Your task to perform on an android device: uninstall "DuckDuckGo Privacy Browser" Image 0: 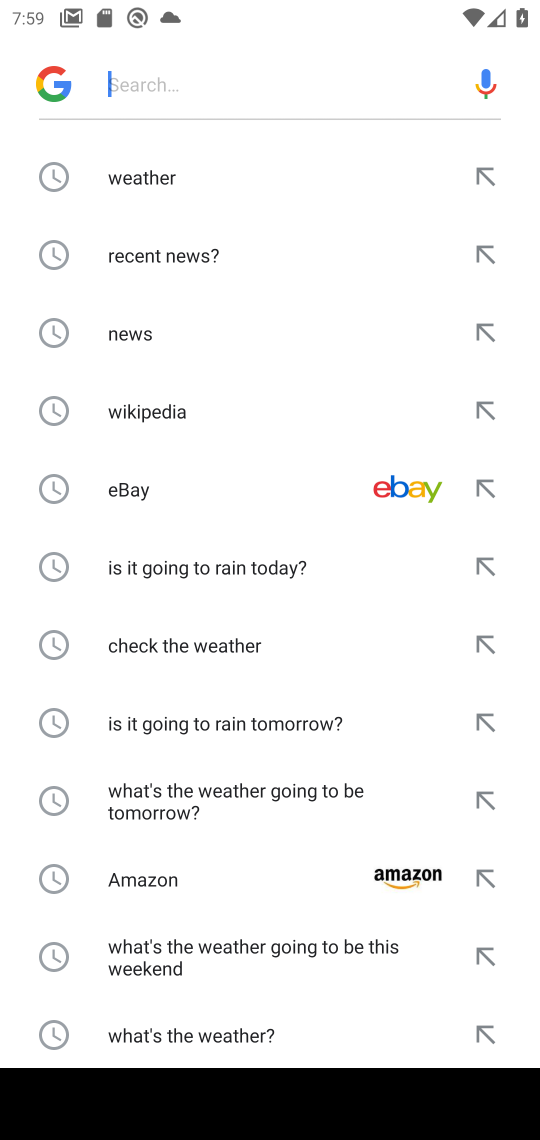
Step 0: press home button
Your task to perform on an android device: uninstall "DuckDuckGo Privacy Browser" Image 1: 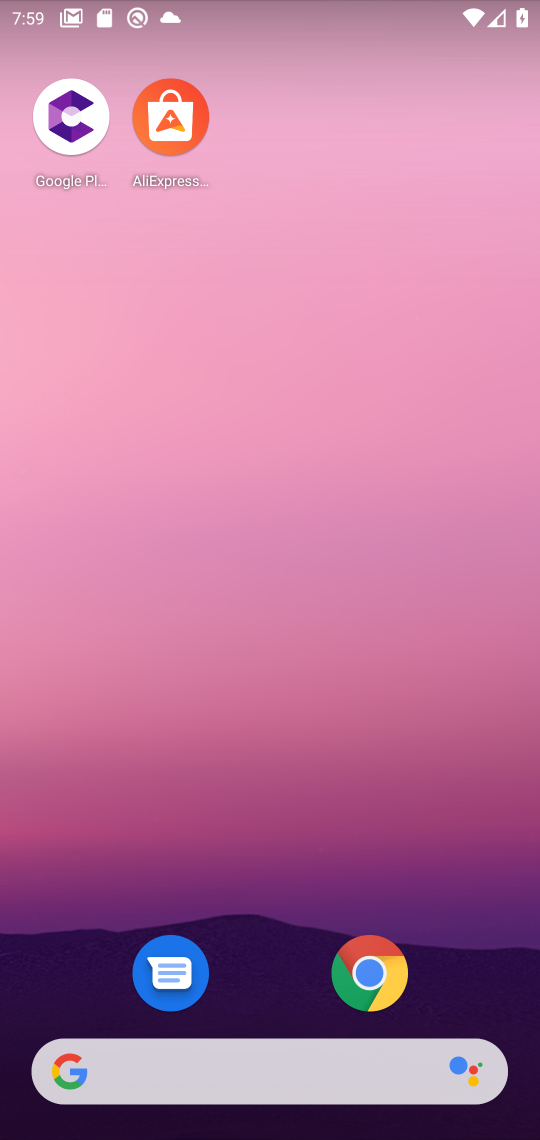
Step 1: drag from (273, 935) to (261, 211)
Your task to perform on an android device: uninstall "DuckDuckGo Privacy Browser" Image 2: 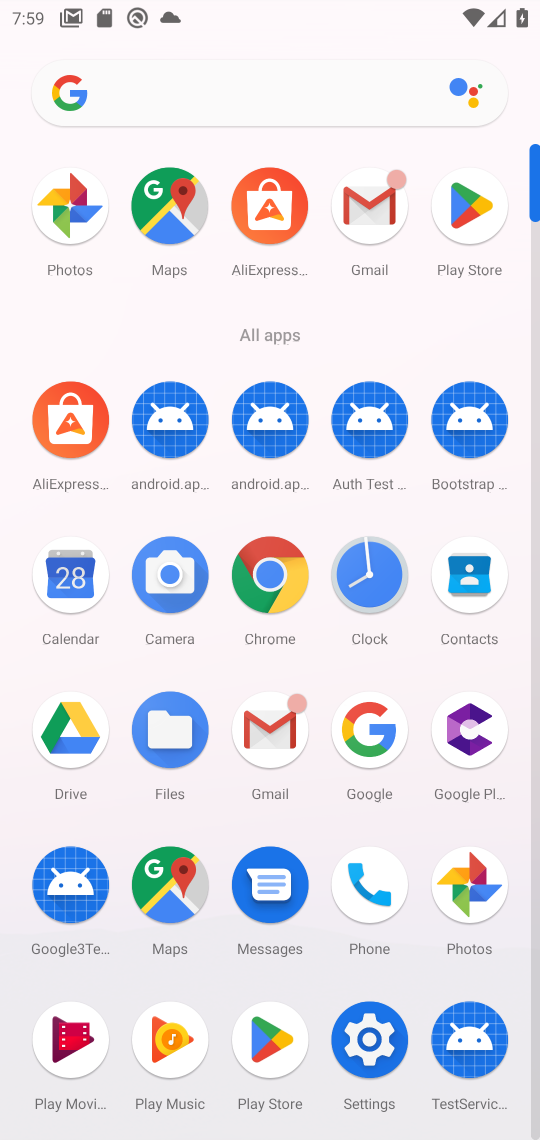
Step 2: click (461, 228)
Your task to perform on an android device: uninstall "DuckDuckGo Privacy Browser" Image 3: 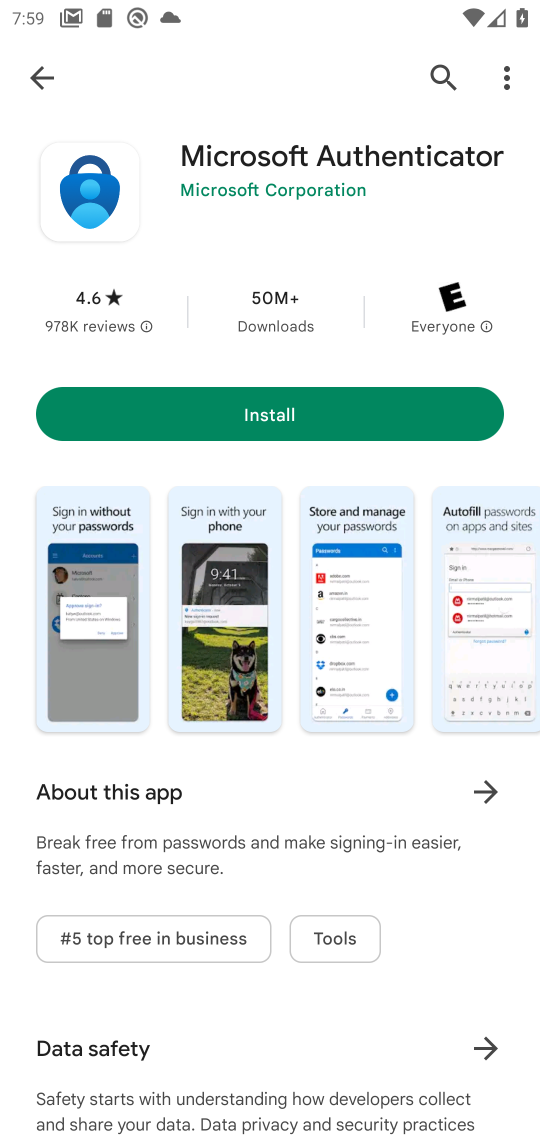
Step 3: click (452, 80)
Your task to perform on an android device: uninstall "DuckDuckGo Privacy Browser" Image 4: 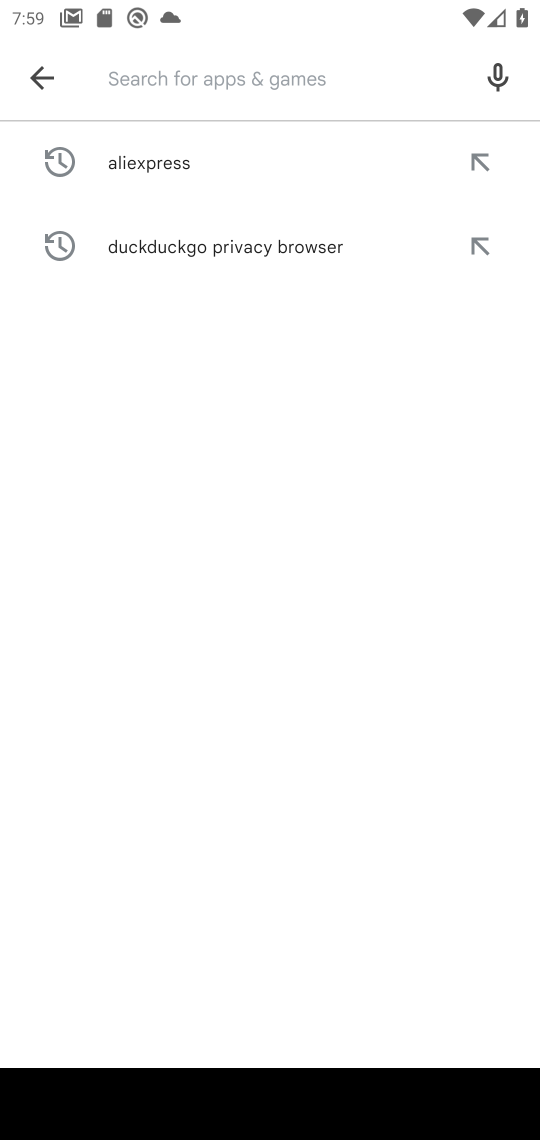
Step 4: click (226, 258)
Your task to perform on an android device: uninstall "DuckDuckGo Privacy Browser" Image 5: 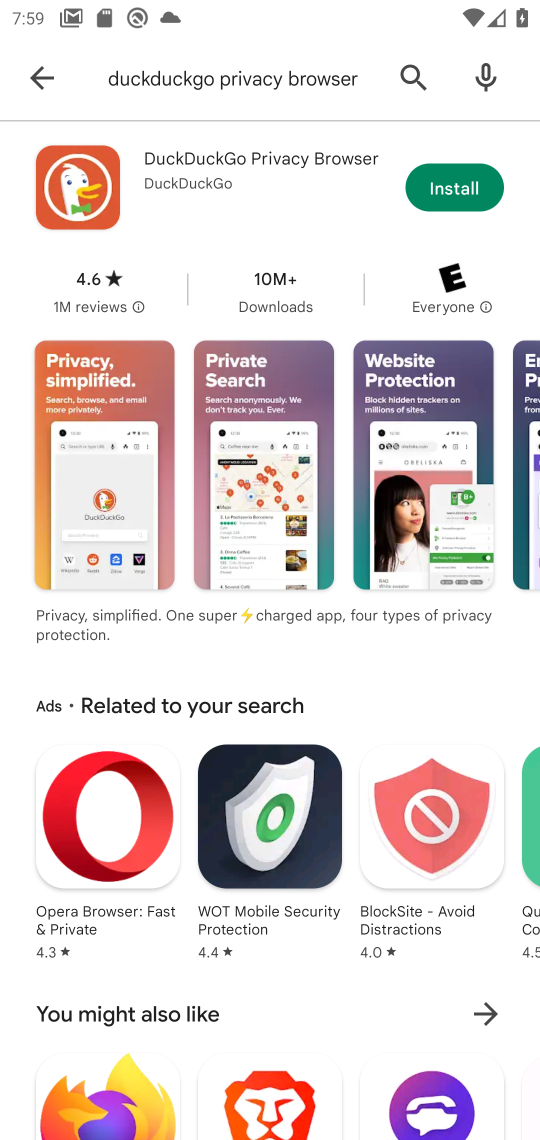
Step 5: task complete